Your task to perform on an android device: open wifi settings Image 0: 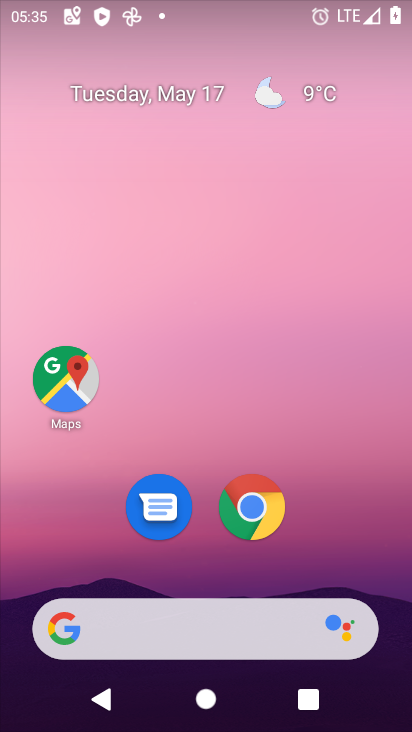
Step 0: drag from (340, 551) to (222, 4)
Your task to perform on an android device: open wifi settings Image 1: 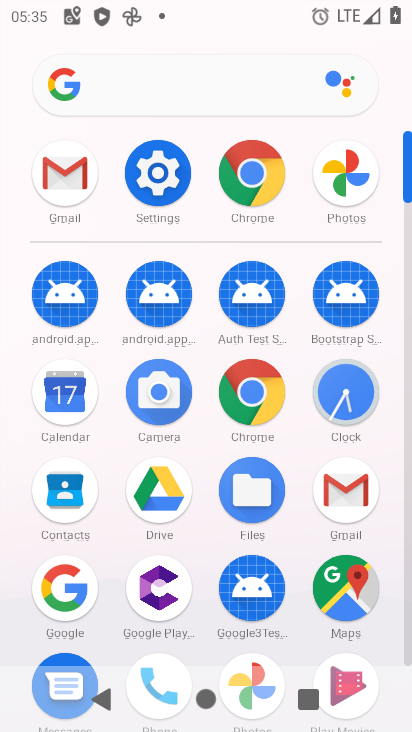
Step 1: click (155, 183)
Your task to perform on an android device: open wifi settings Image 2: 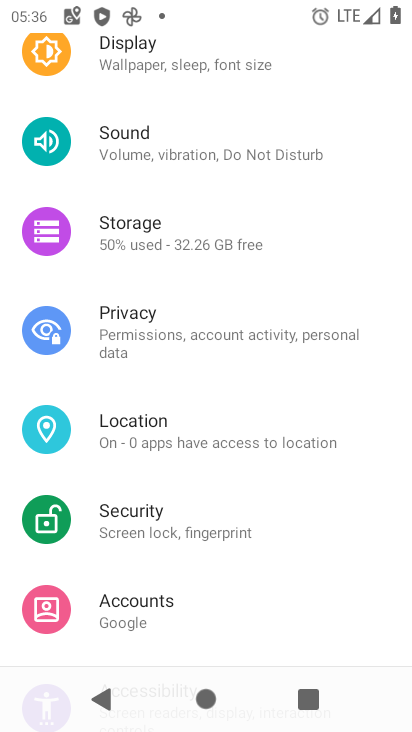
Step 2: drag from (212, 167) to (214, 647)
Your task to perform on an android device: open wifi settings Image 3: 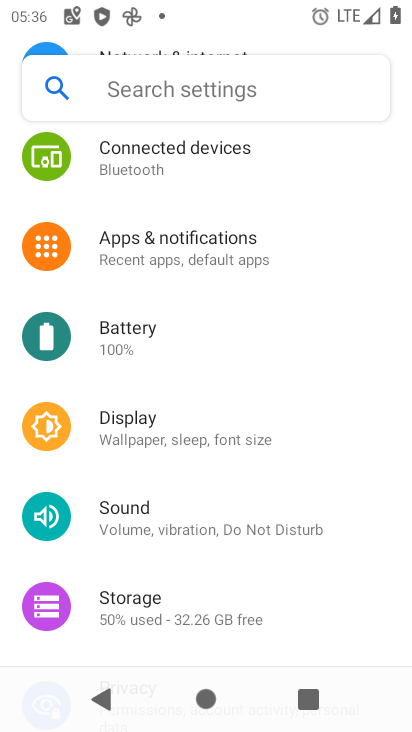
Step 3: drag from (217, 218) to (230, 648)
Your task to perform on an android device: open wifi settings Image 4: 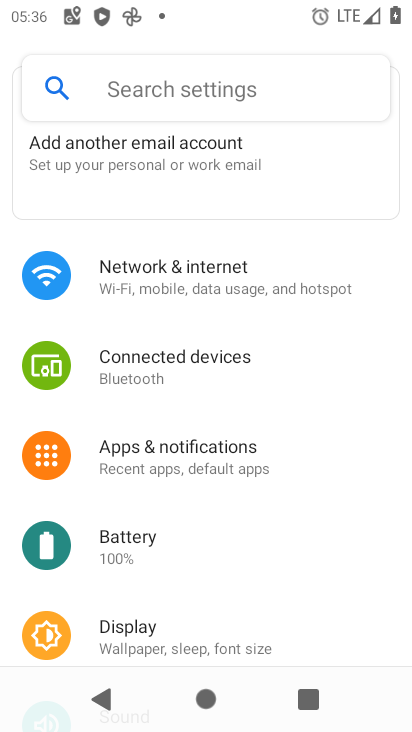
Step 4: click (194, 281)
Your task to perform on an android device: open wifi settings Image 5: 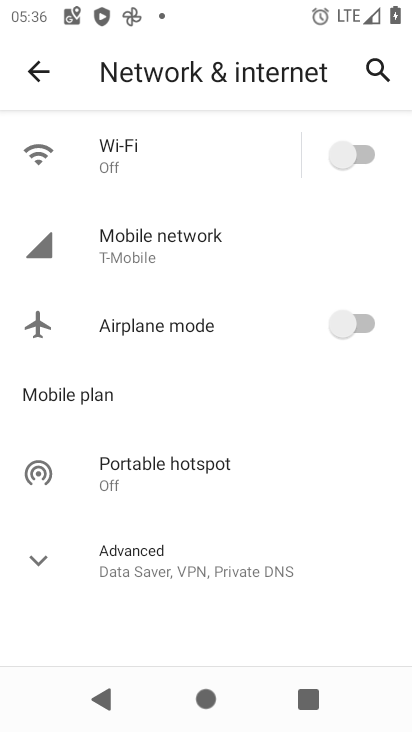
Step 5: click (179, 147)
Your task to perform on an android device: open wifi settings Image 6: 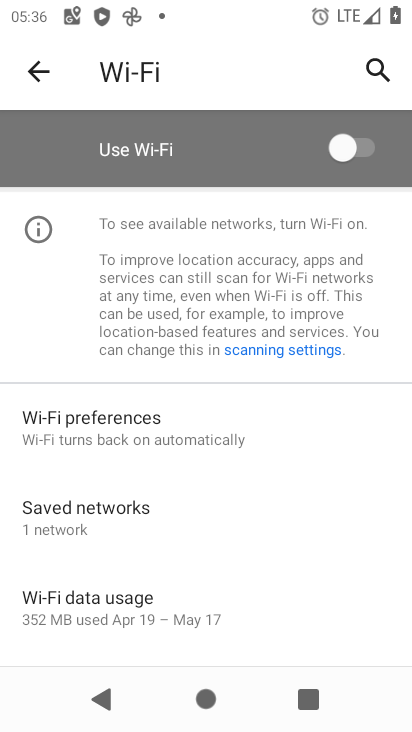
Step 6: task complete